Your task to perform on an android device: turn on sleep mode Image 0: 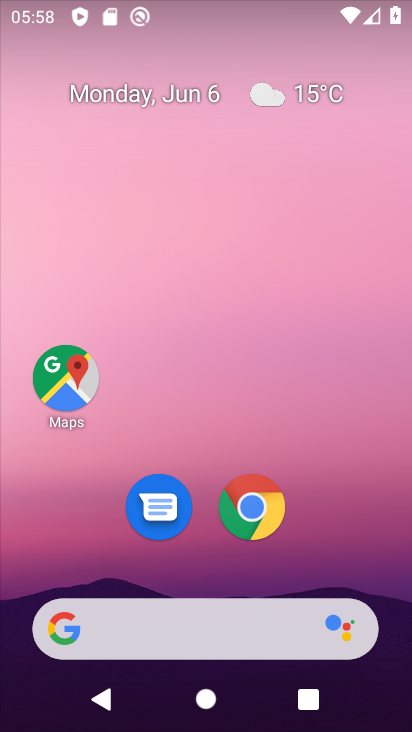
Step 0: drag from (226, 558) to (262, 76)
Your task to perform on an android device: turn on sleep mode Image 1: 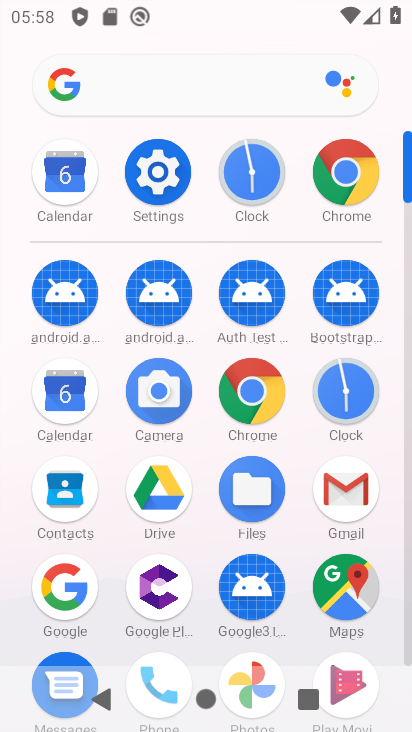
Step 1: click (162, 173)
Your task to perform on an android device: turn on sleep mode Image 2: 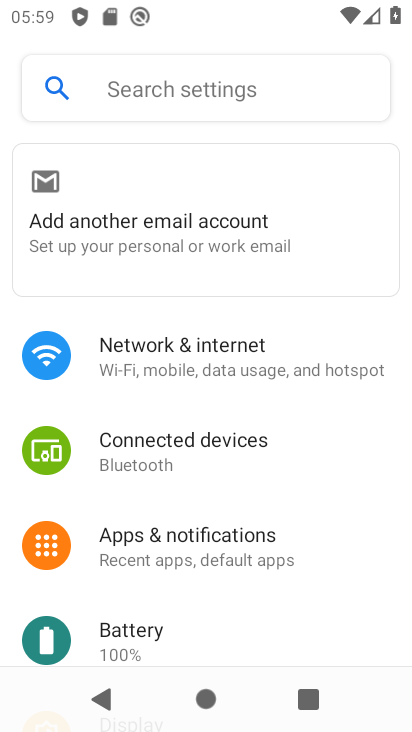
Step 2: task complete